Your task to perform on an android device: change the upload size in google photos Image 0: 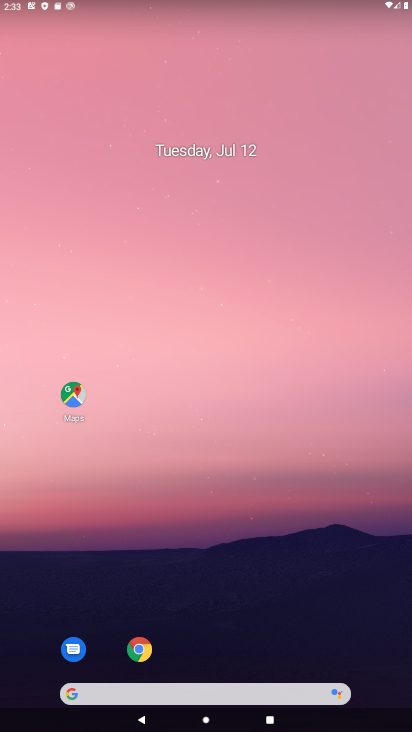
Step 0: drag from (309, 631) to (105, 6)
Your task to perform on an android device: change the upload size in google photos Image 1: 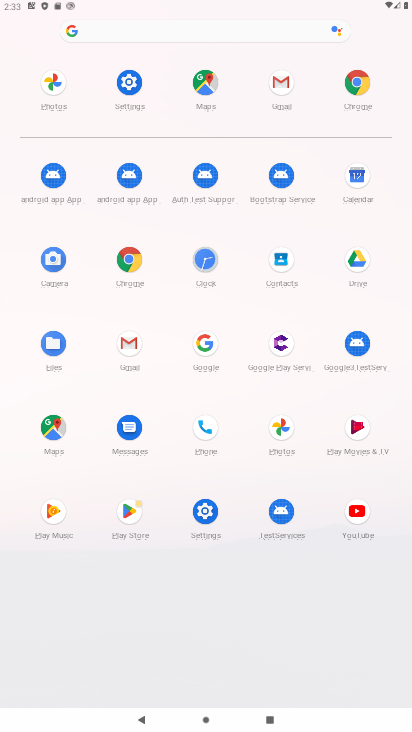
Step 1: click (276, 428)
Your task to perform on an android device: change the upload size in google photos Image 2: 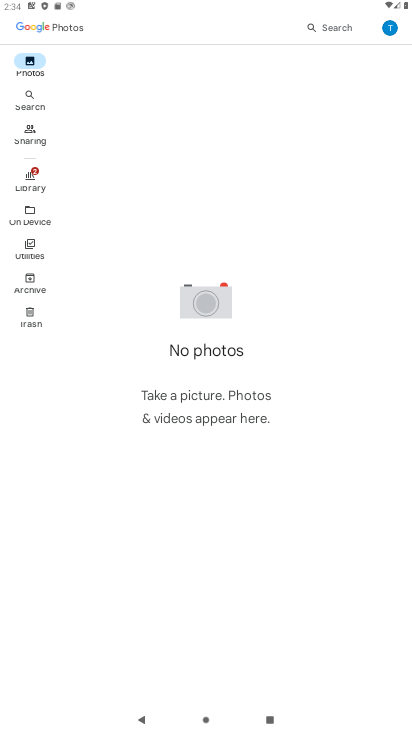
Step 2: click (385, 32)
Your task to perform on an android device: change the upload size in google photos Image 3: 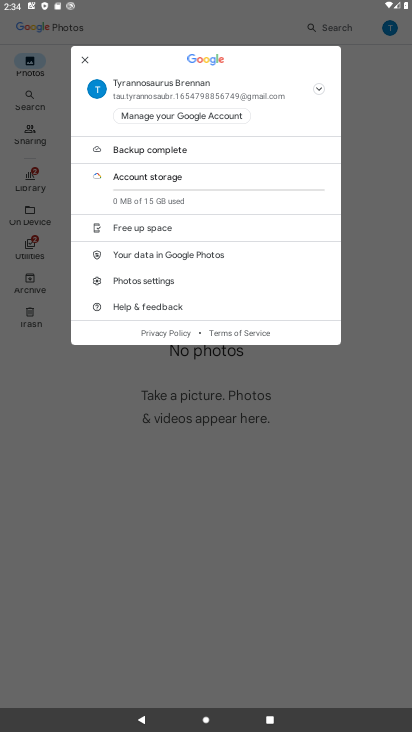
Step 3: click (200, 276)
Your task to perform on an android device: change the upload size in google photos Image 4: 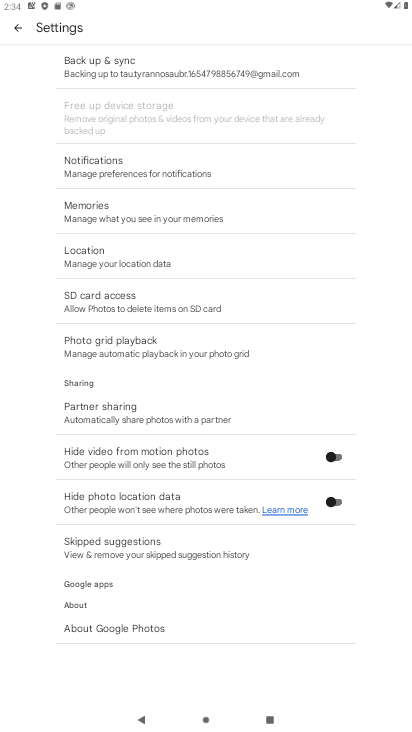
Step 4: click (163, 88)
Your task to perform on an android device: change the upload size in google photos Image 5: 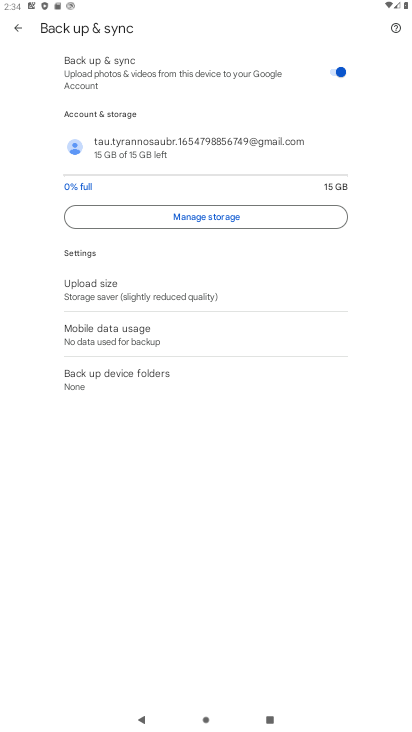
Step 5: task complete